Your task to perform on an android device: toggle improve location accuracy Image 0: 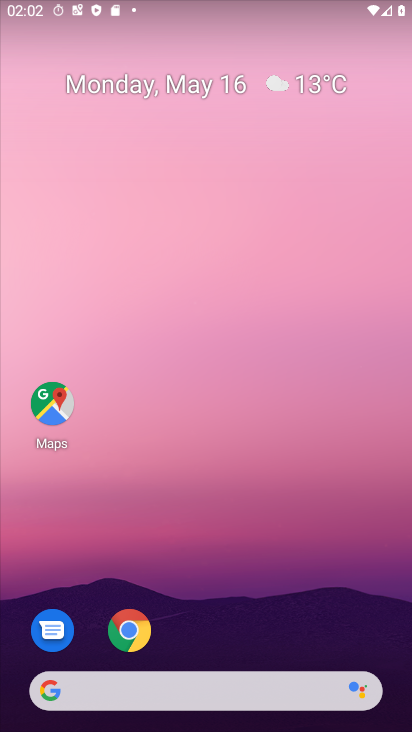
Step 0: drag from (399, 641) to (308, 4)
Your task to perform on an android device: toggle improve location accuracy Image 1: 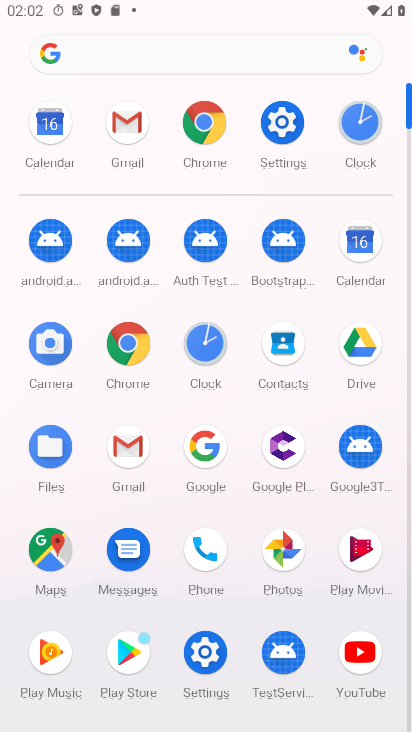
Step 1: click (285, 88)
Your task to perform on an android device: toggle improve location accuracy Image 2: 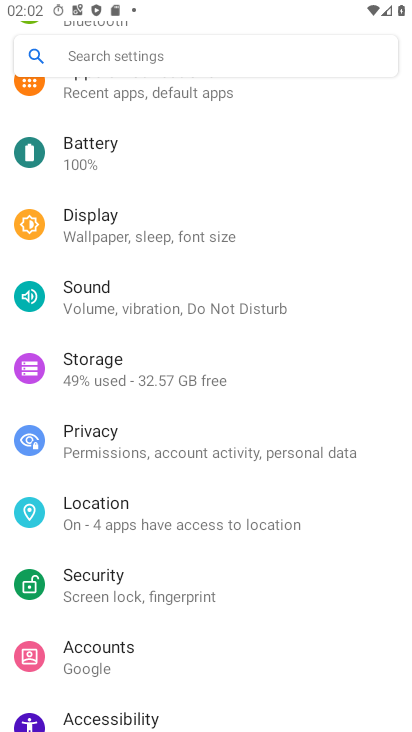
Step 2: click (232, 523)
Your task to perform on an android device: toggle improve location accuracy Image 3: 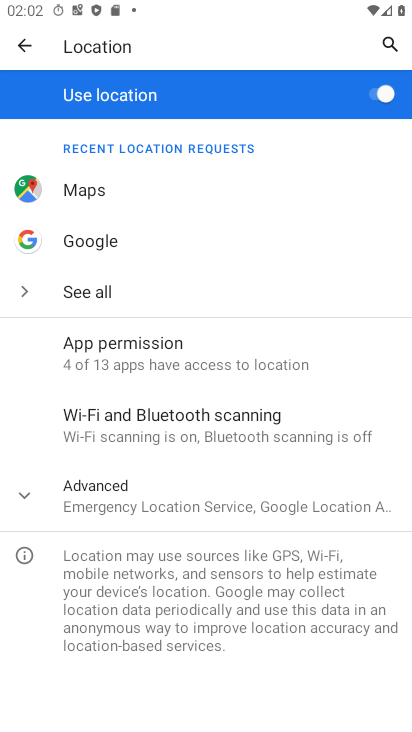
Step 3: click (236, 507)
Your task to perform on an android device: toggle improve location accuracy Image 4: 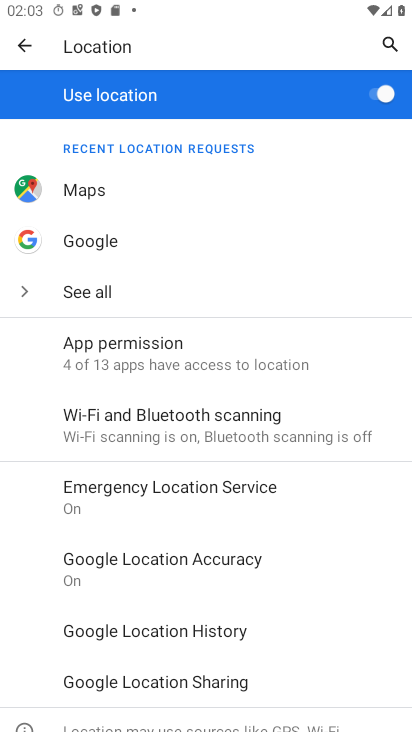
Step 4: click (234, 575)
Your task to perform on an android device: toggle improve location accuracy Image 5: 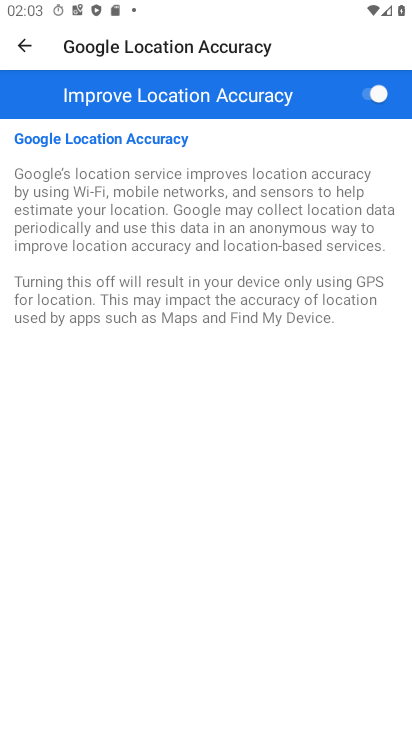
Step 5: click (370, 103)
Your task to perform on an android device: toggle improve location accuracy Image 6: 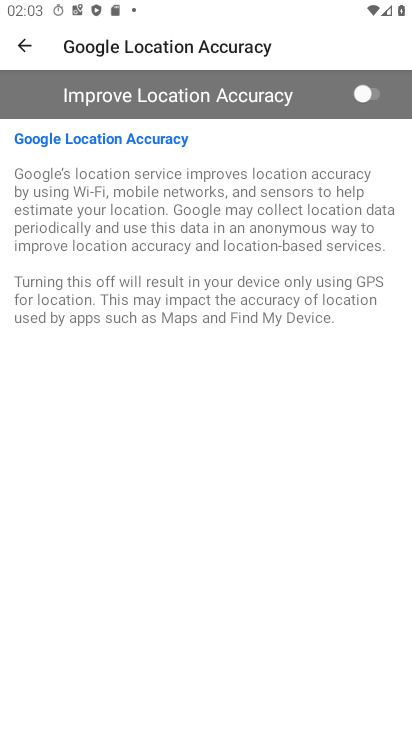
Step 6: task complete